Your task to perform on an android device: Go to notification settings Image 0: 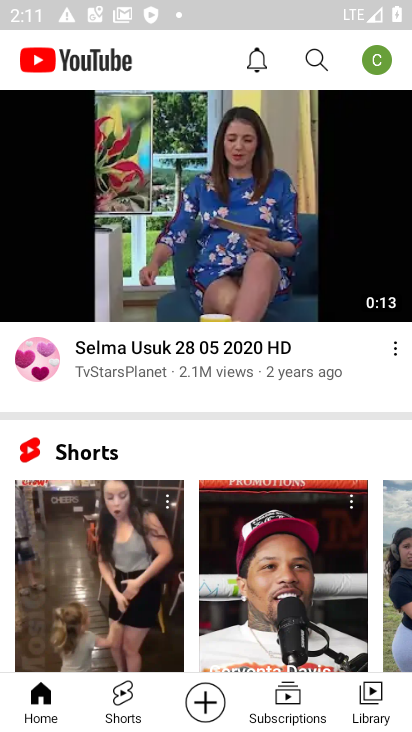
Step 0: press home button
Your task to perform on an android device: Go to notification settings Image 1: 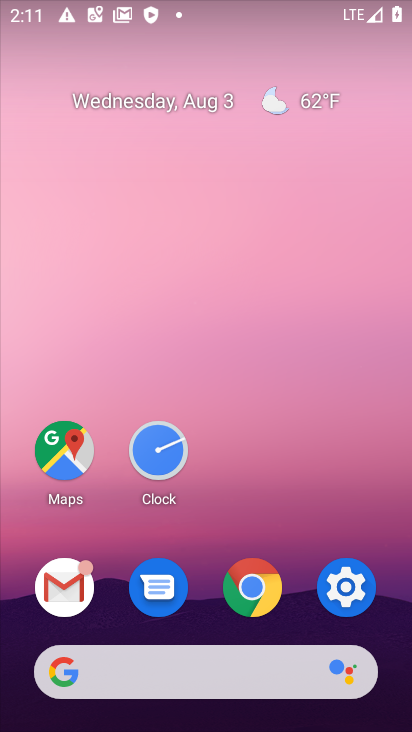
Step 1: click (346, 586)
Your task to perform on an android device: Go to notification settings Image 2: 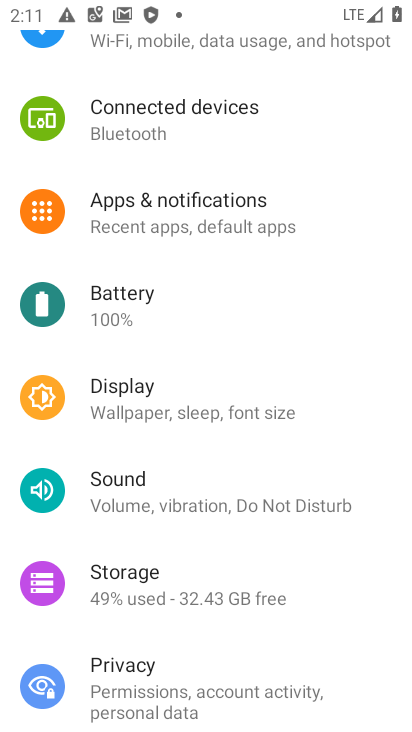
Step 2: click (158, 188)
Your task to perform on an android device: Go to notification settings Image 3: 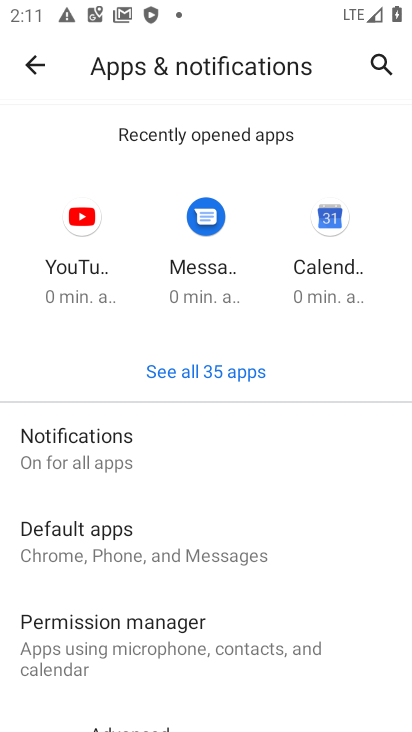
Step 3: task complete